Your task to perform on an android device: Go to calendar. Show me events next week Image 0: 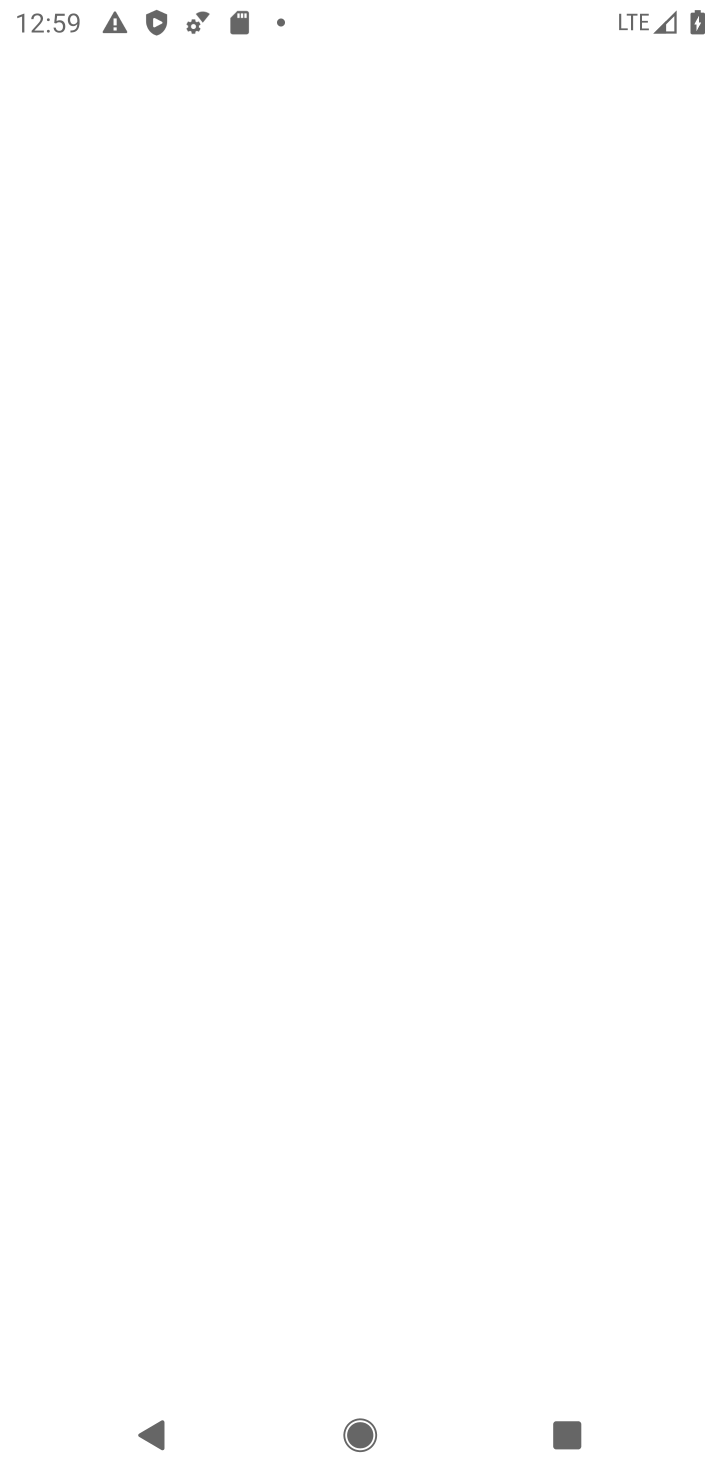
Step 0: press home button
Your task to perform on an android device: Go to calendar. Show me events next week Image 1: 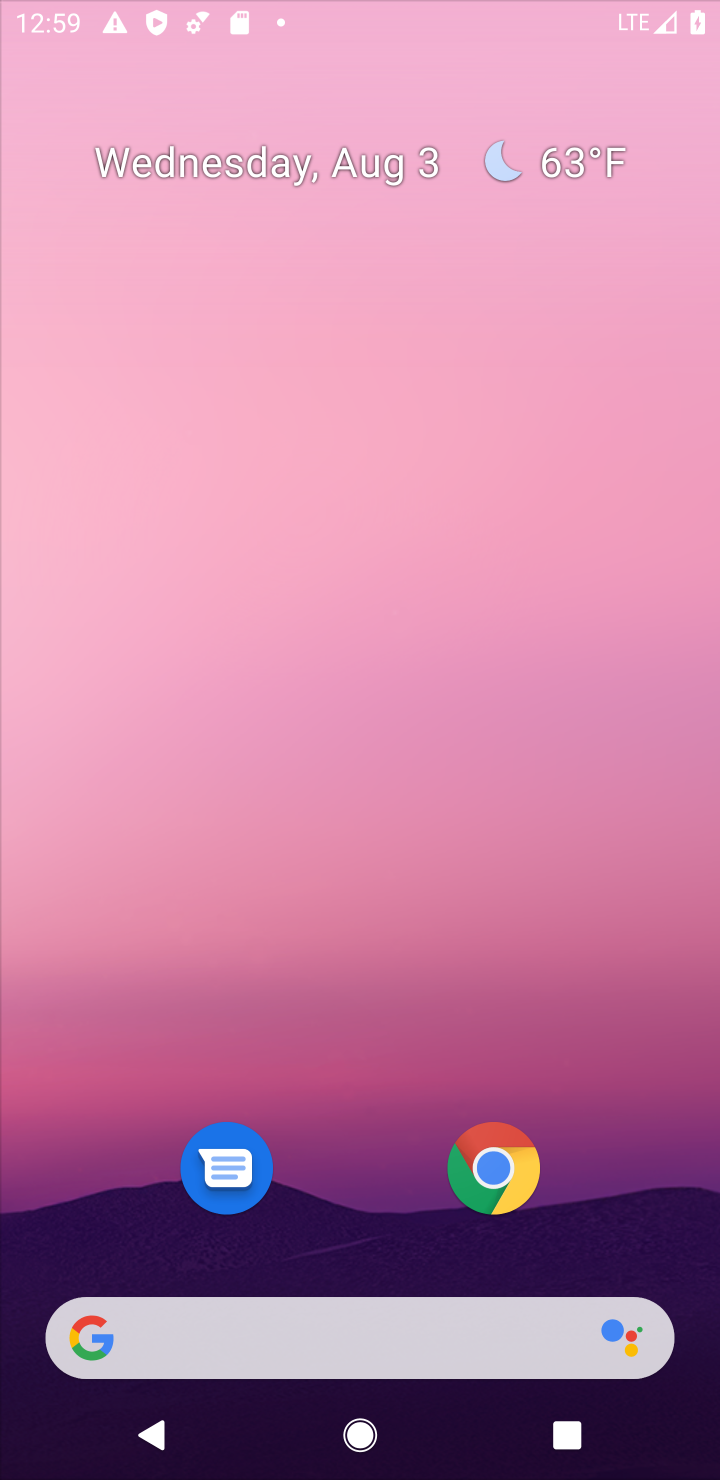
Step 1: press home button
Your task to perform on an android device: Go to calendar. Show me events next week Image 2: 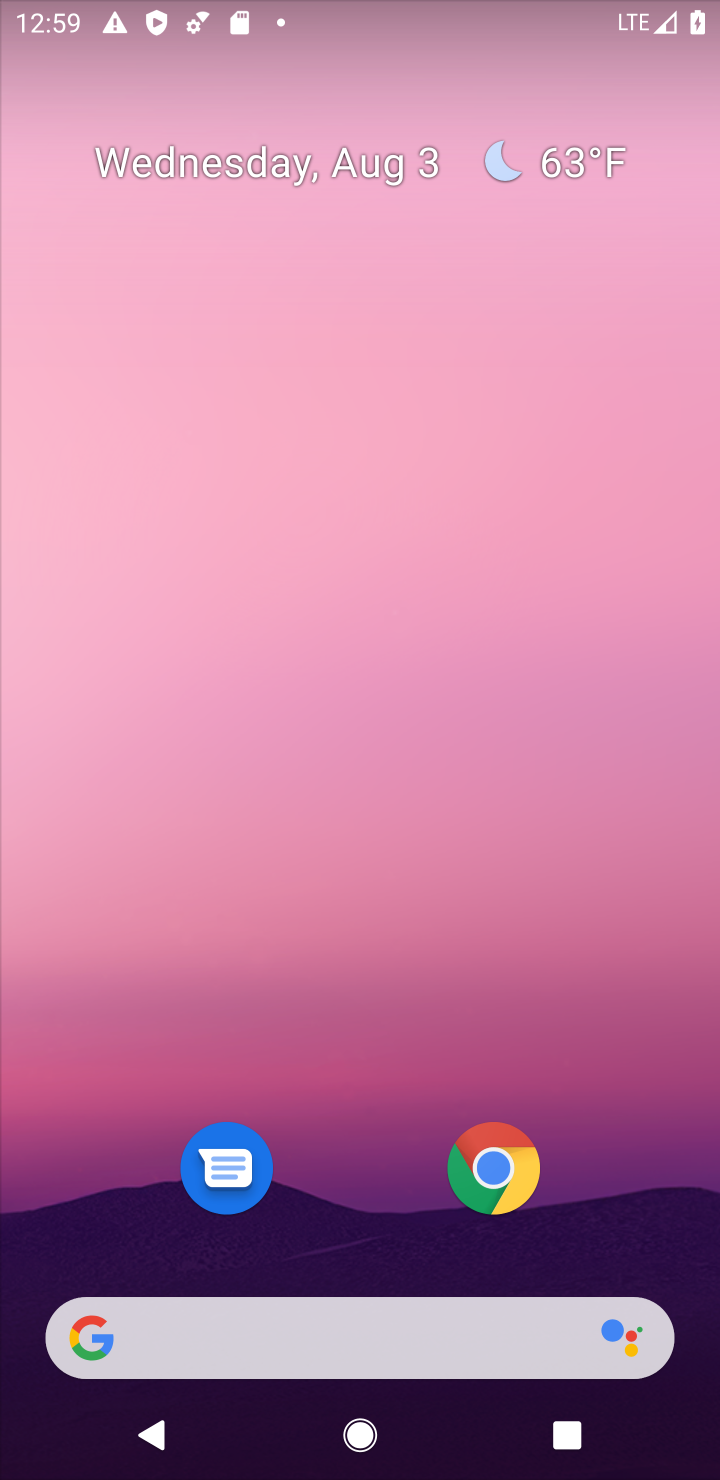
Step 2: drag from (317, 432) to (281, 272)
Your task to perform on an android device: Go to calendar. Show me events next week Image 3: 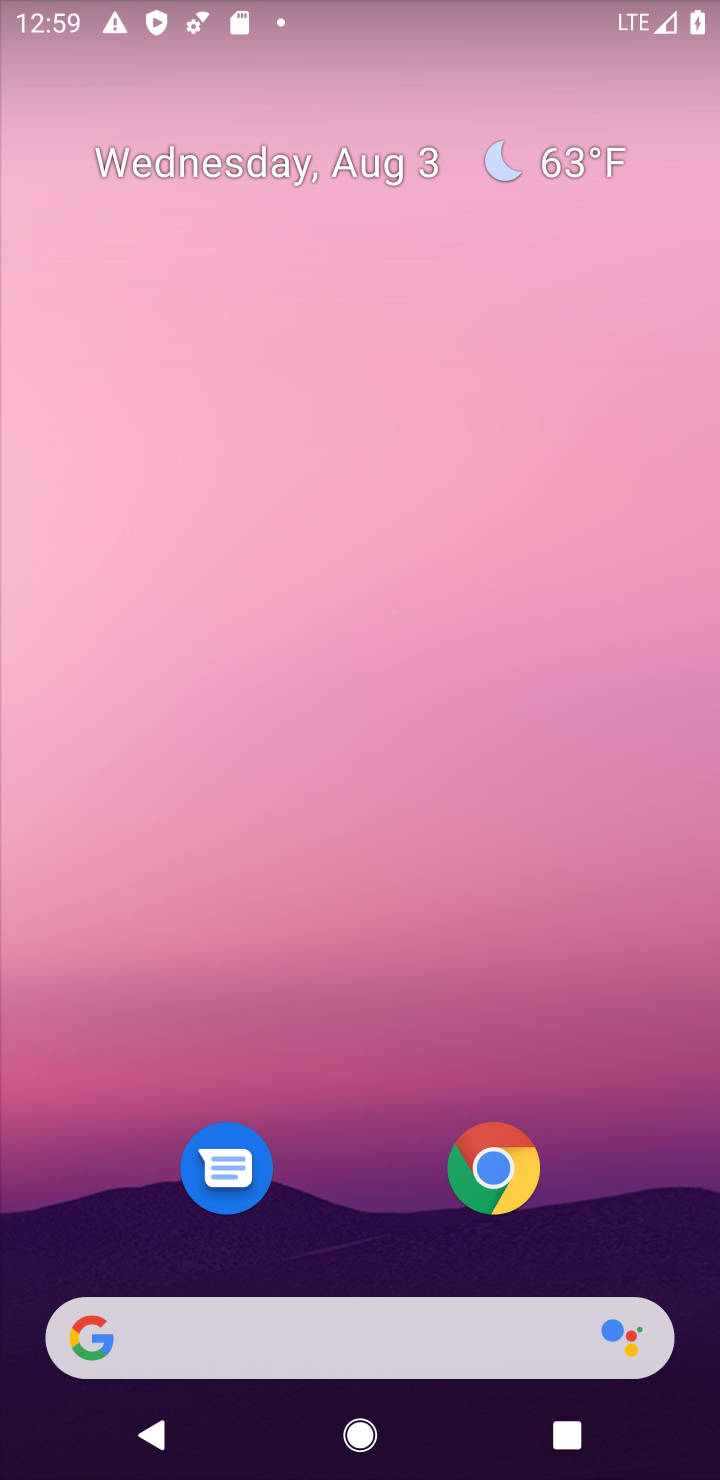
Step 3: drag from (370, 1162) to (398, 85)
Your task to perform on an android device: Go to calendar. Show me events next week Image 4: 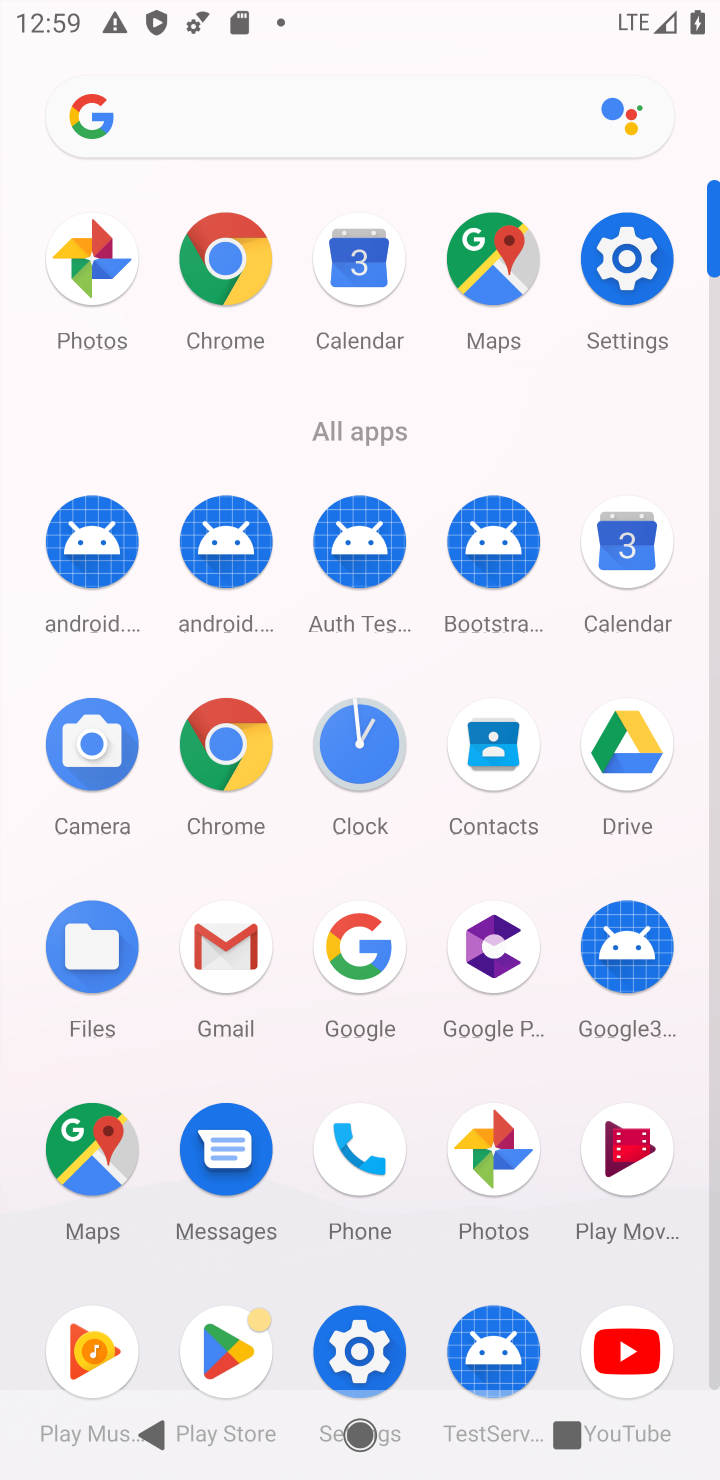
Step 4: click (613, 546)
Your task to perform on an android device: Go to calendar. Show me events next week Image 5: 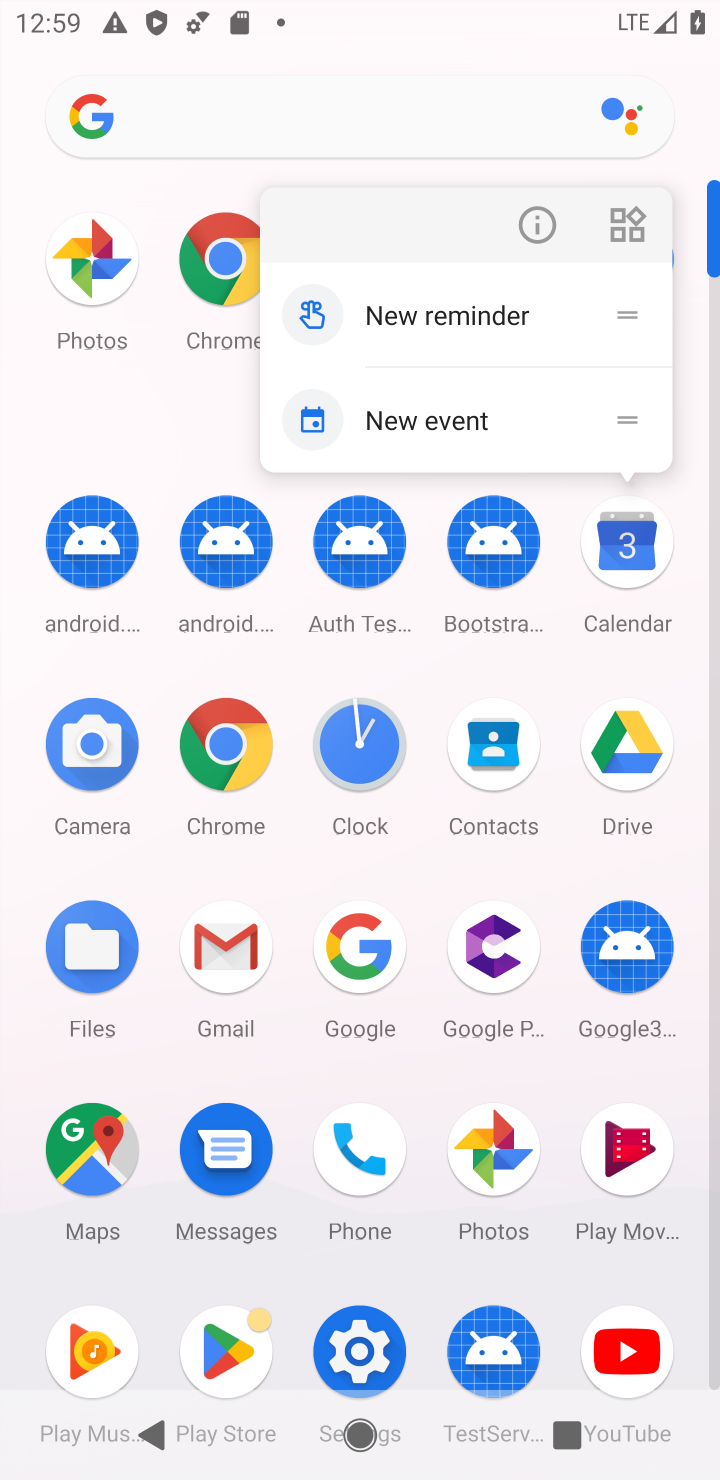
Step 5: click (613, 546)
Your task to perform on an android device: Go to calendar. Show me events next week Image 6: 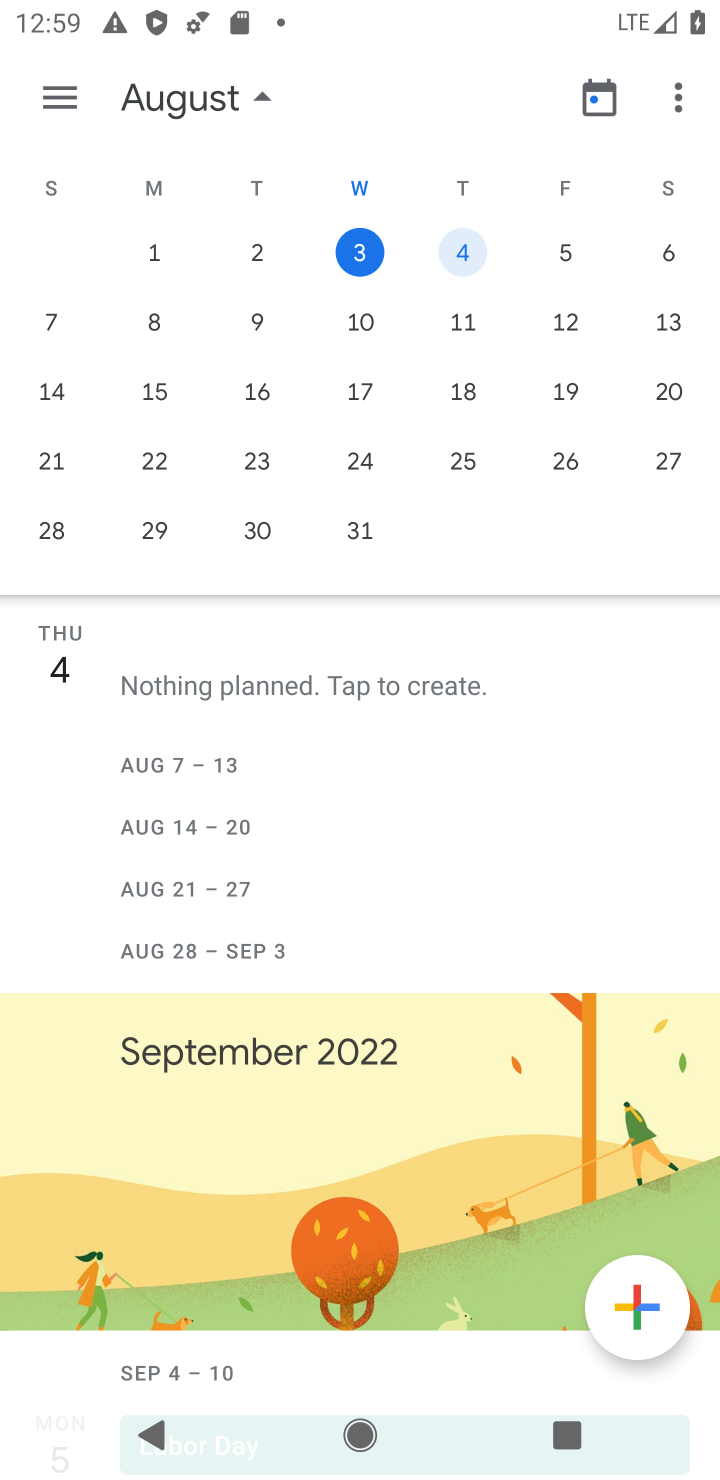
Step 6: click (367, 338)
Your task to perform on an android device: Go to calendar. Show me events next week Image 7: 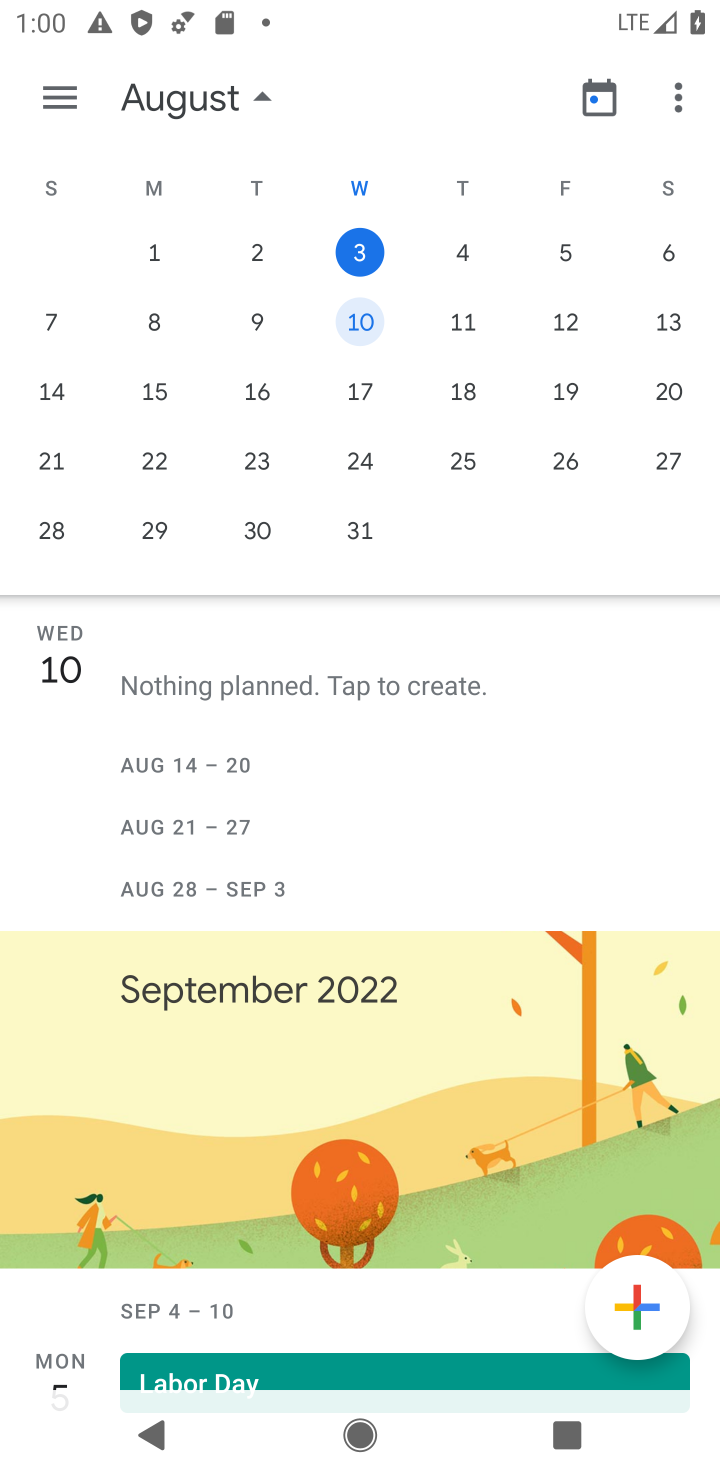
Step 7: task complete